Your task to perform on an android device: Open Google Maps and go to "Timeline" Image 0: 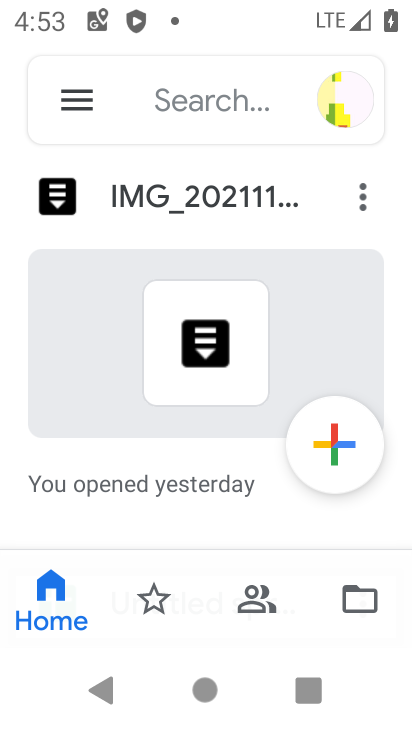
Step 0: press home button
Your task to perform on an android device: Open Google Maps and go to "Timeline" Image 1: 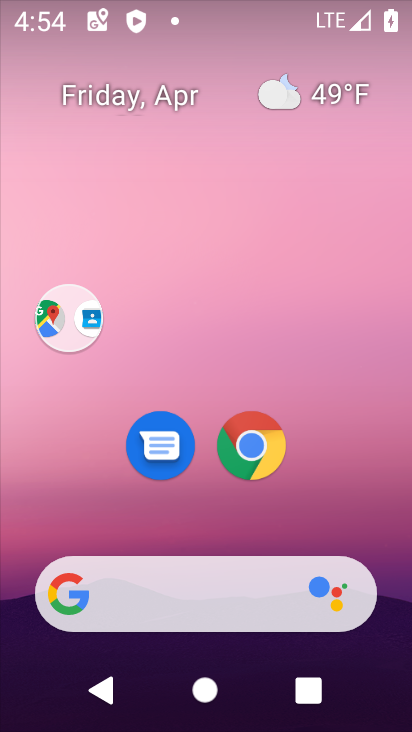
Step 1: drag from (328, 510) to (354, 158)
Your task to perform on an android device: Open Google Maps and go to "Timeline" Image 2: 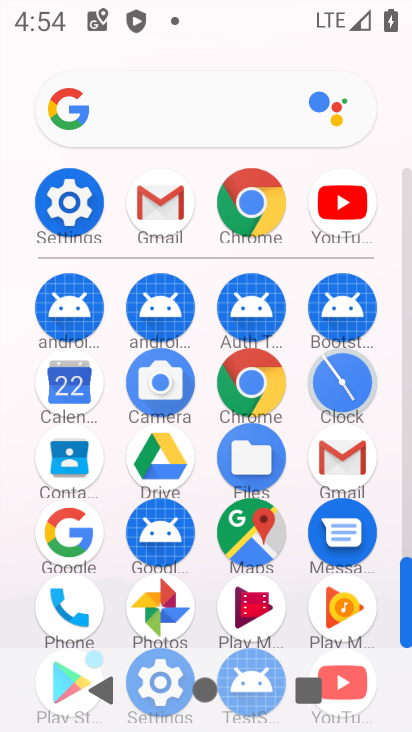
Step 2: click (254, 523)
Your task to perform on an android device: Open Google Maps and go to "Timeline" Image 3: 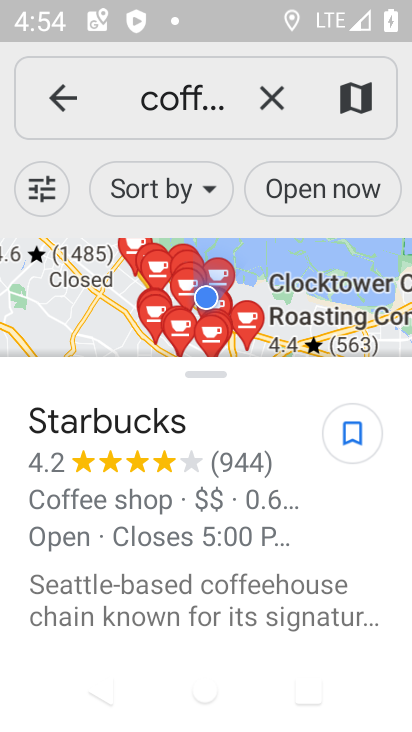
Step 3: click (48, 103)
Your task to perform on an android device: Open Google Maps and go to "Timeline" Image 4: 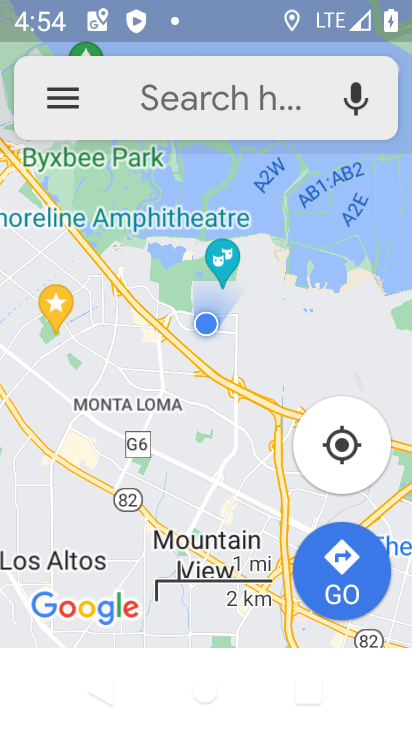
Step 4: click (50, 103)
Your task to perform on an android device: Open Google Maps and go to "Timeline" Image 5: 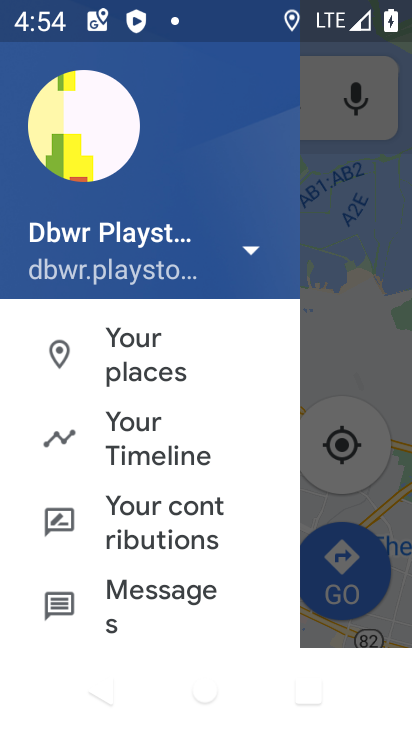
Step 5: click (176, 450)
Your task to perform on an android device: Open Google Maps and go to "Timeline" Image 6: 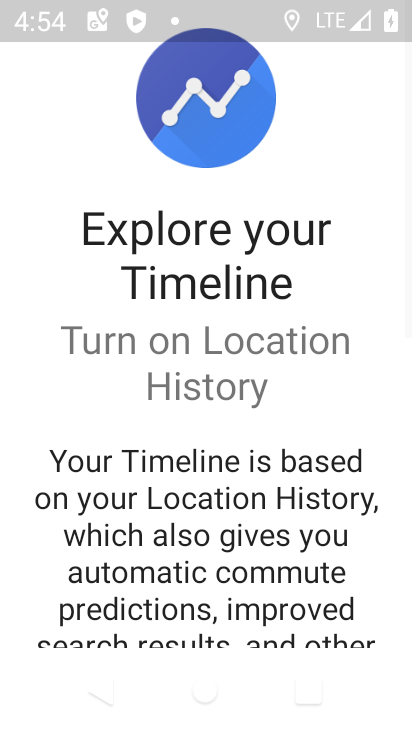
Step 6: drag from (253, 571) to (279, 101)
Your task to perform on an android device: Open Google Maps and go to "Timeline" Image 7: 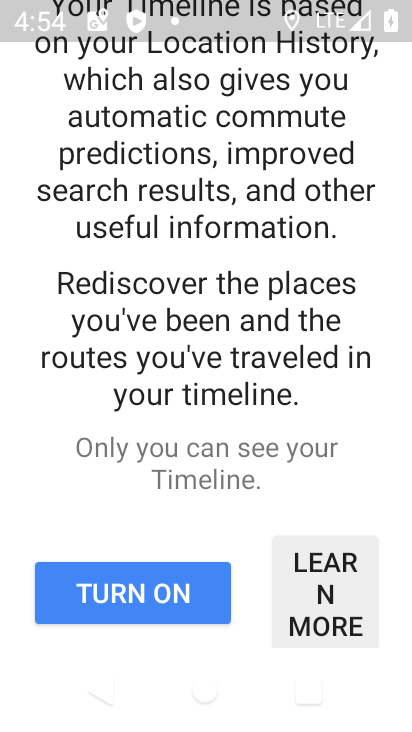
Step 7: click (142, 583)
Your task to perform on an android device: Open Google Maps and go to "Timeline" Image 8: 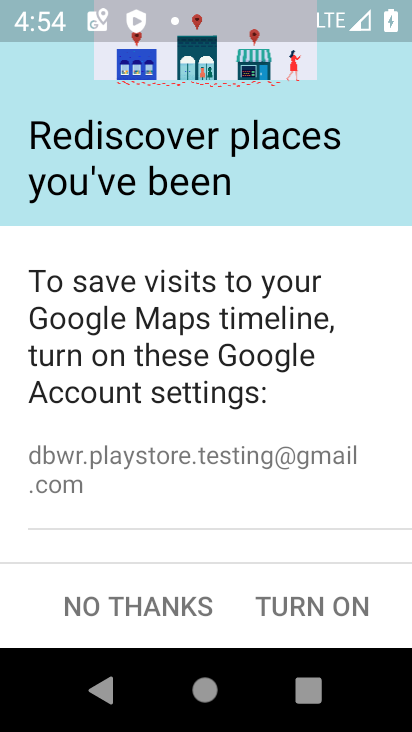
Step 8: click (118, 614)
Your task to perform on an android device: Open Google Maps and go to "Timeline" Image 9: 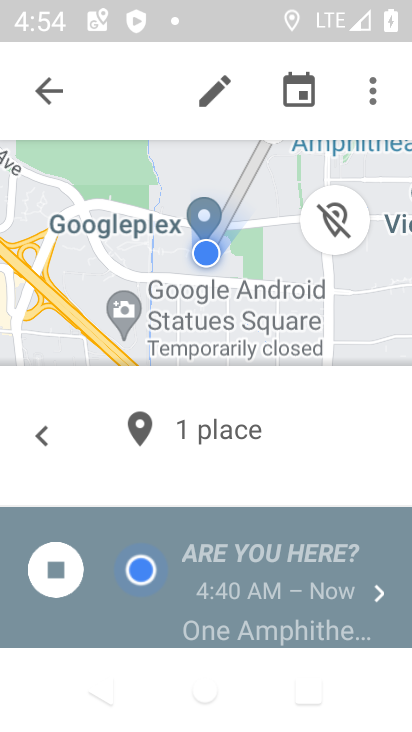
Step 9: task complete